Your task to perform on an android device: Show me popular games on the Play Store Image 0: 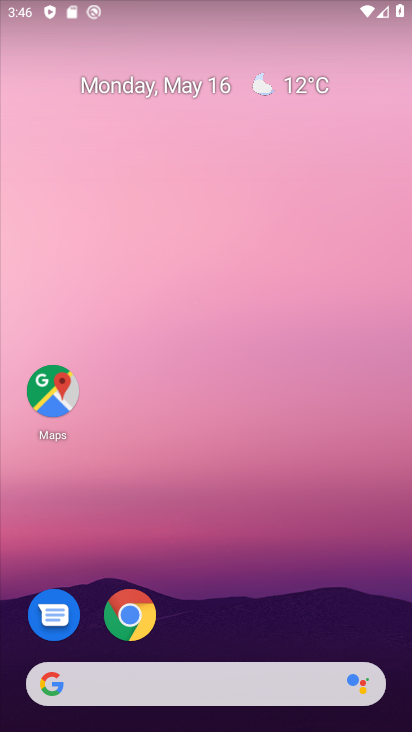
Step 0: press back button
Your task to perform on an android device: Show me popular games on the Play Store Image 1: 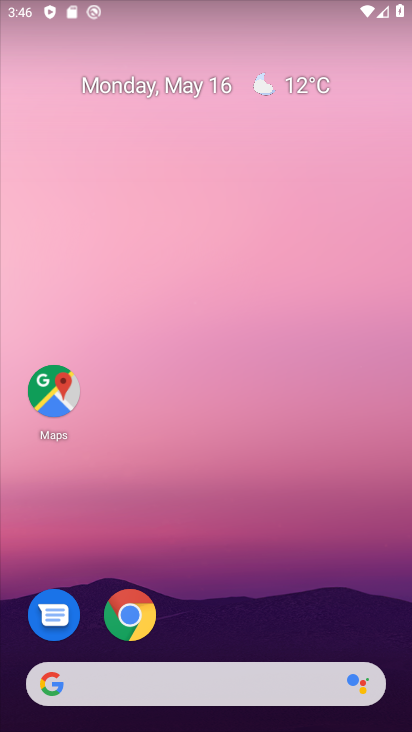
Step 1: drag from (313, 496) to (249, 15)
Your task to perform on an android device: Show me popular games on the Play Store Image 2: 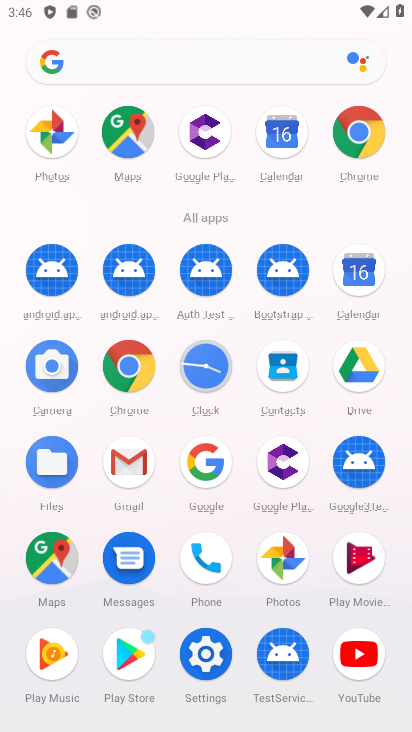
Step 2: drag from (265, 639) to (276, 7)
Your task to perform on an android device: Show me popular games on the Play Store Image 3: 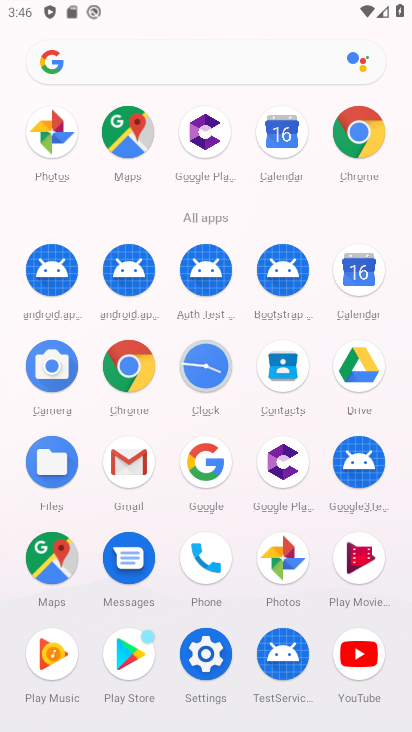
Step 3: click (129, 658)
Your task to perform on an android device: Show me popular games on the Play Store Image 4: 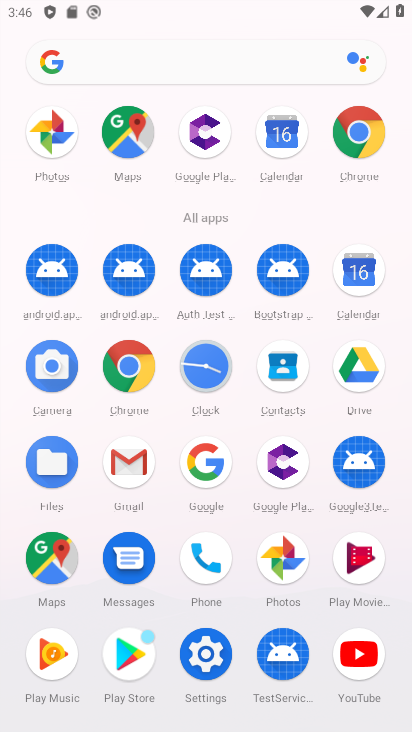
Step 4: click (129, 658)
Your task to perform on an android device: Show me popular games on the Play Store Image 5: 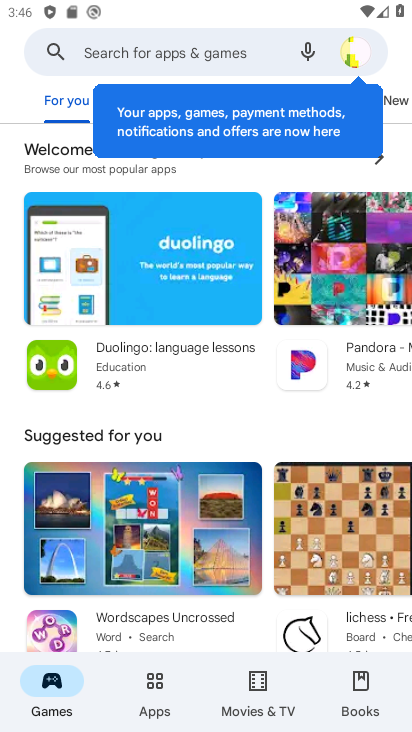
Step 5: click (120, 47)
Your task to perform on an android device: Show me popular games on the Play Store Image 6: 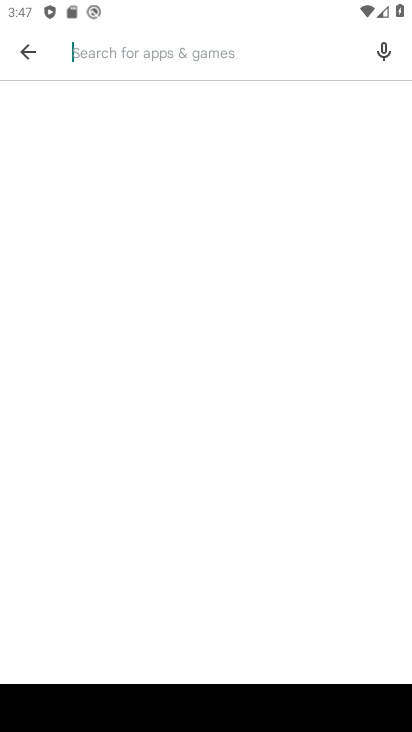
Step 6: type "popular games"
Your task to perform on an android device: Show me popular games on the Play Store Image 7: 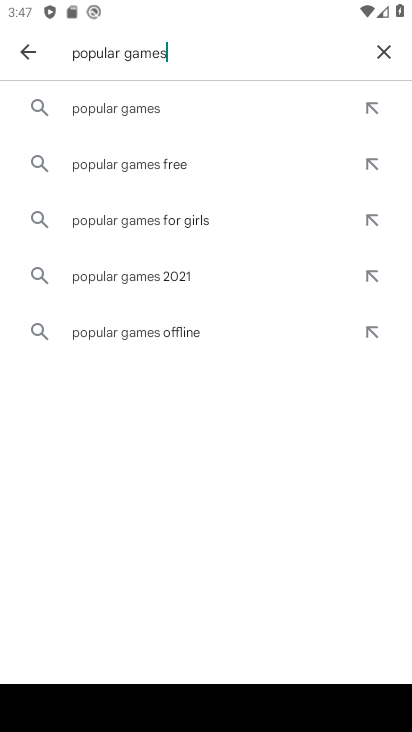
Step 7: click (120, 108)
Your task to perform on an android device: Show me popular games on the Play Store Image 8: 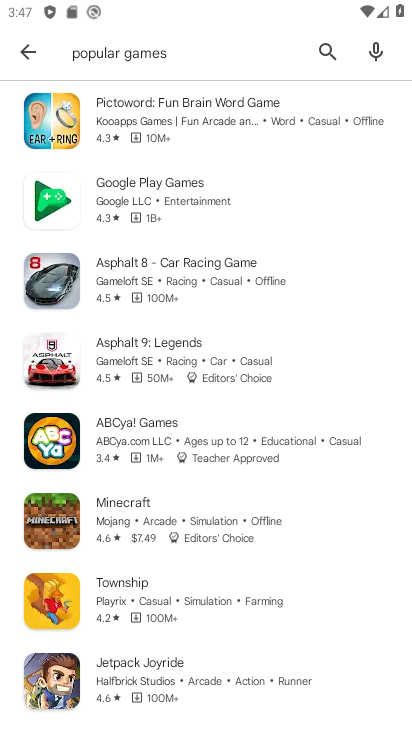
Step 8: click (163, 190)
Your task to perform on an android device: Show me popular games on the Play Store Image 9: 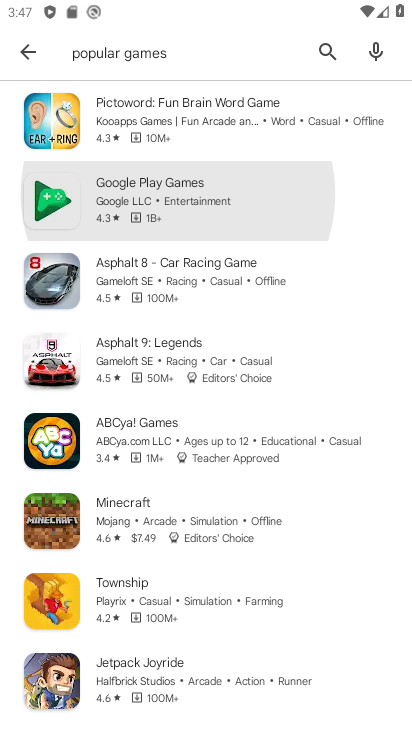
Step 9: task complete